Your task to perform on an android device: check google app version Image 0: 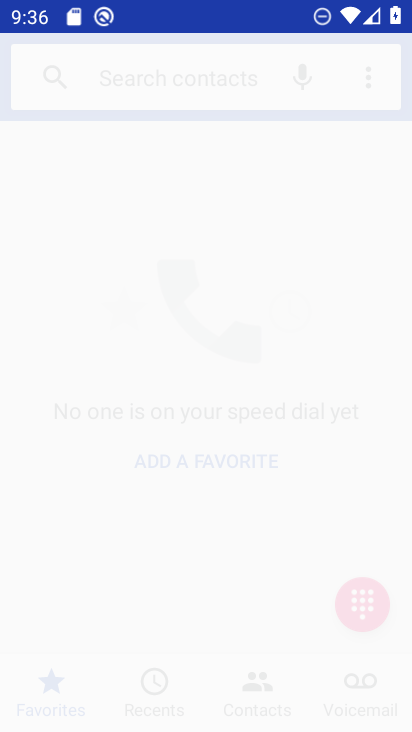
Step 0: drag from (366, 581) to (290, 104)
Your task to perform on an android device: check google app version Image 1: 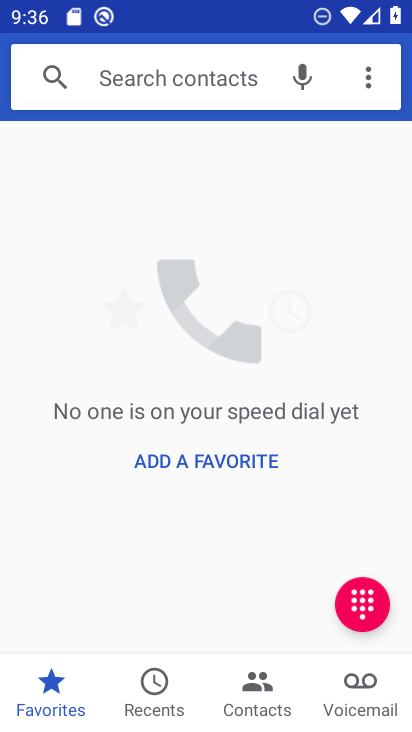
Step 1: press home button
Your task to perform on an android device: check google app version Image 2: 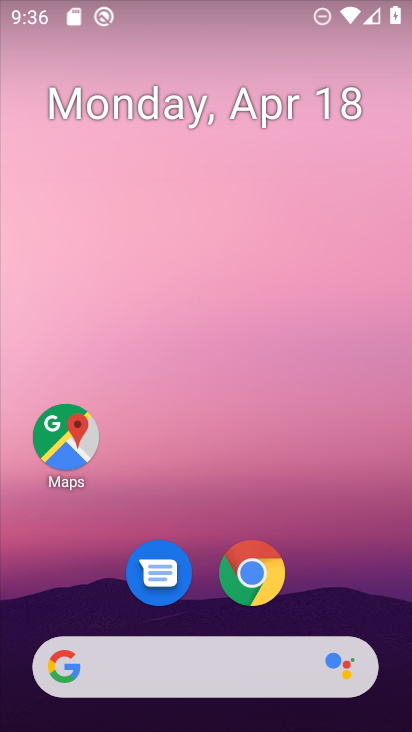
Step 2: drag from (347, 590) to (234, 112)
Your task to perform on an android device: check google app version Image 3: 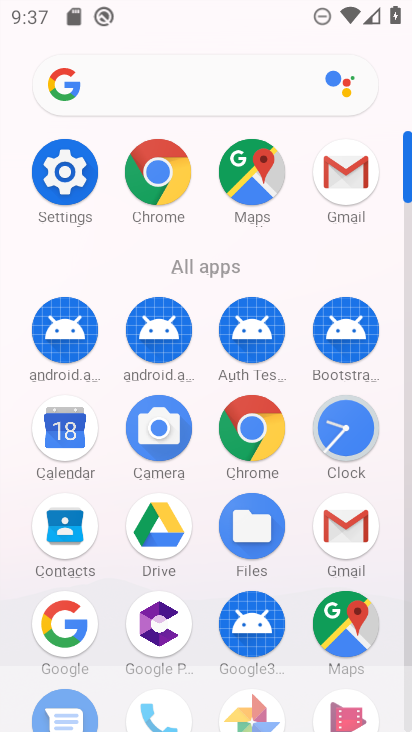
Step 3: click (58, 610)
Your task to perform on an android device: check google app version Image 4: 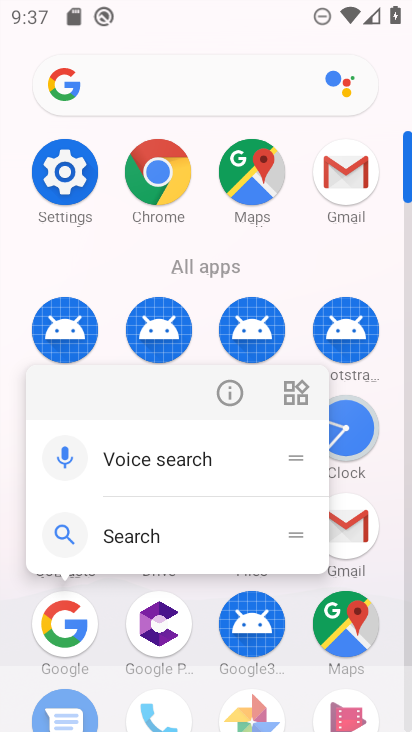
Step 4: click (229, 392)
Your task to perform on an android device: check google app version Image 5: 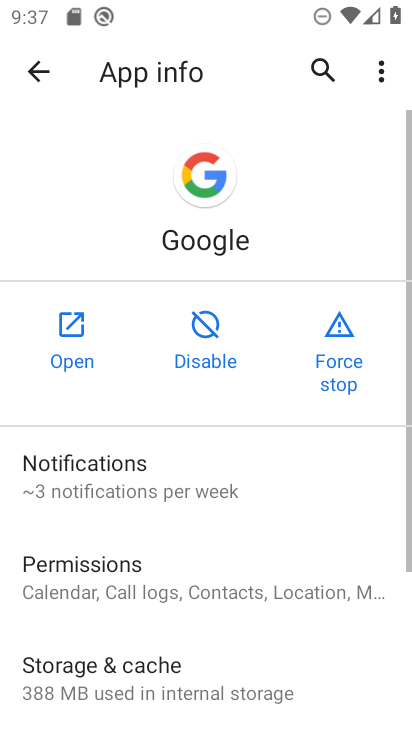
Step 5: drag from (188, 184) to (155, 102)
Your task to perform on an android device: check google app version Image 6: 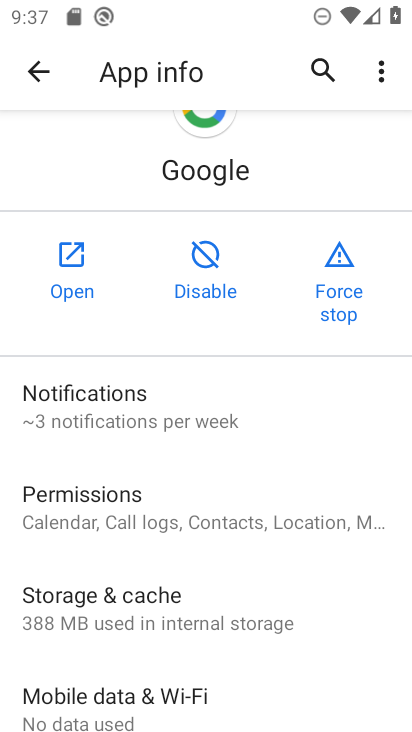
Step 6: drag from (162, 601) to (137, 114)
Your task to perform on an android device: check google app version Image 7: 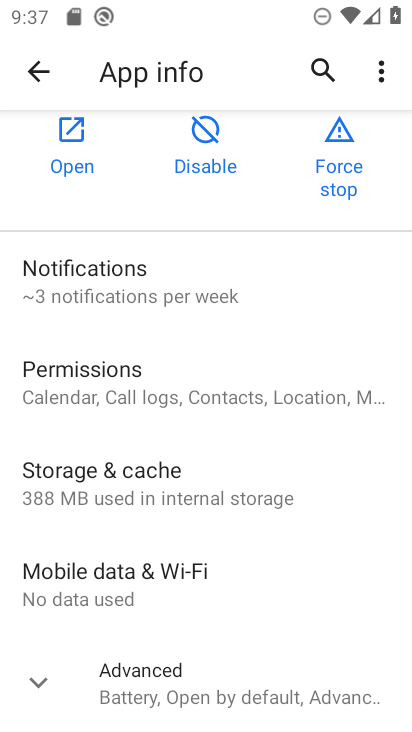
Step 7: click (65, 677)
Your task to perform on an android device: check google app version Image 8: 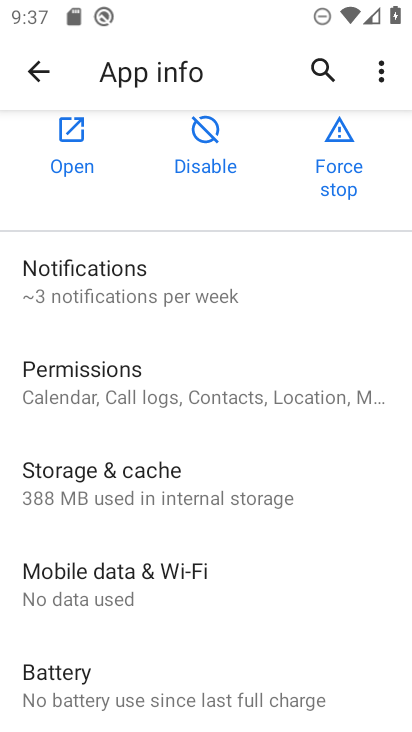
Step 8: task complete